Your task to perform on an android device: open app "Walmart Shopping & Grocery" (install if not already installed), go to login, and select forgot password Image 0: 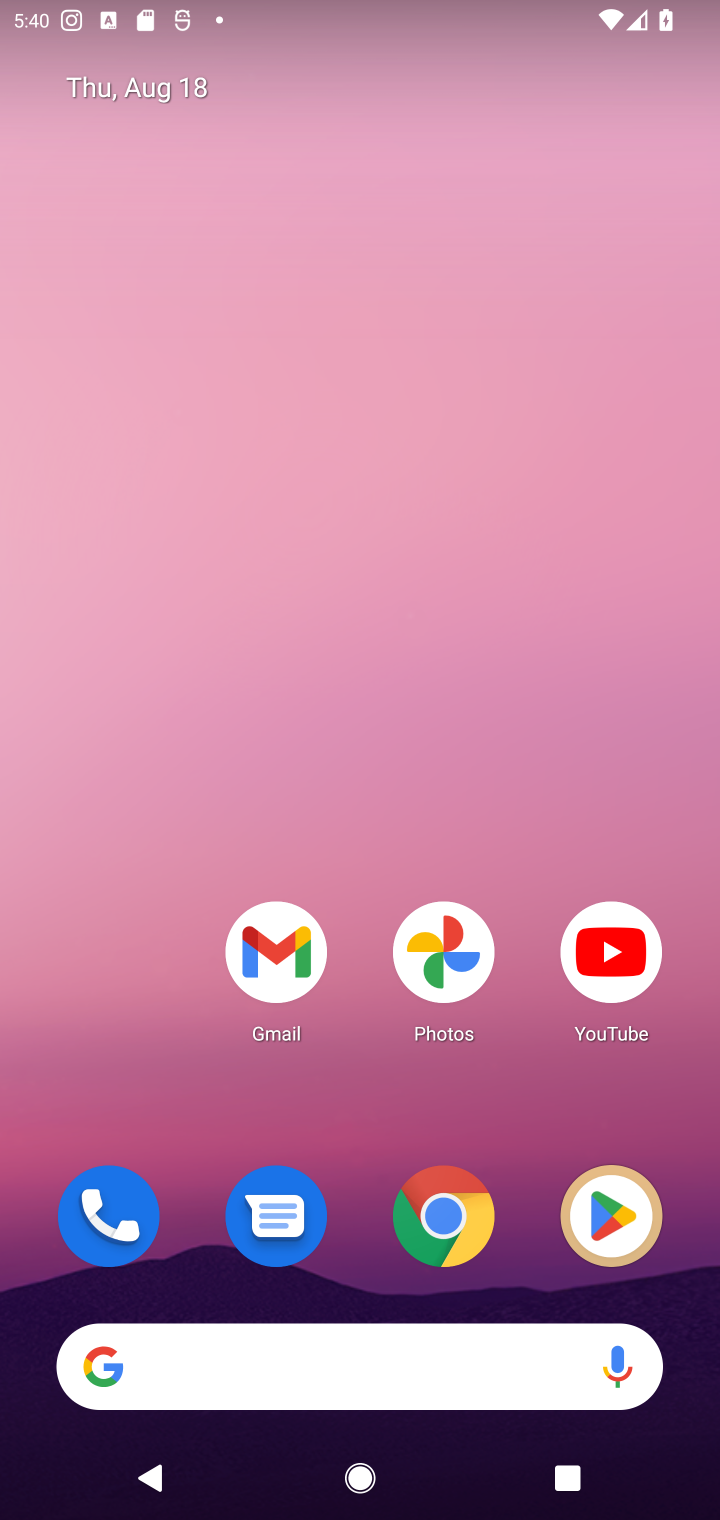
Step 0: click (620, 1205)
Your task to perform on an android device: open app "Walmart Shopping & Grocery" (install if not already installed), go to login, and select forgot password Image 1: 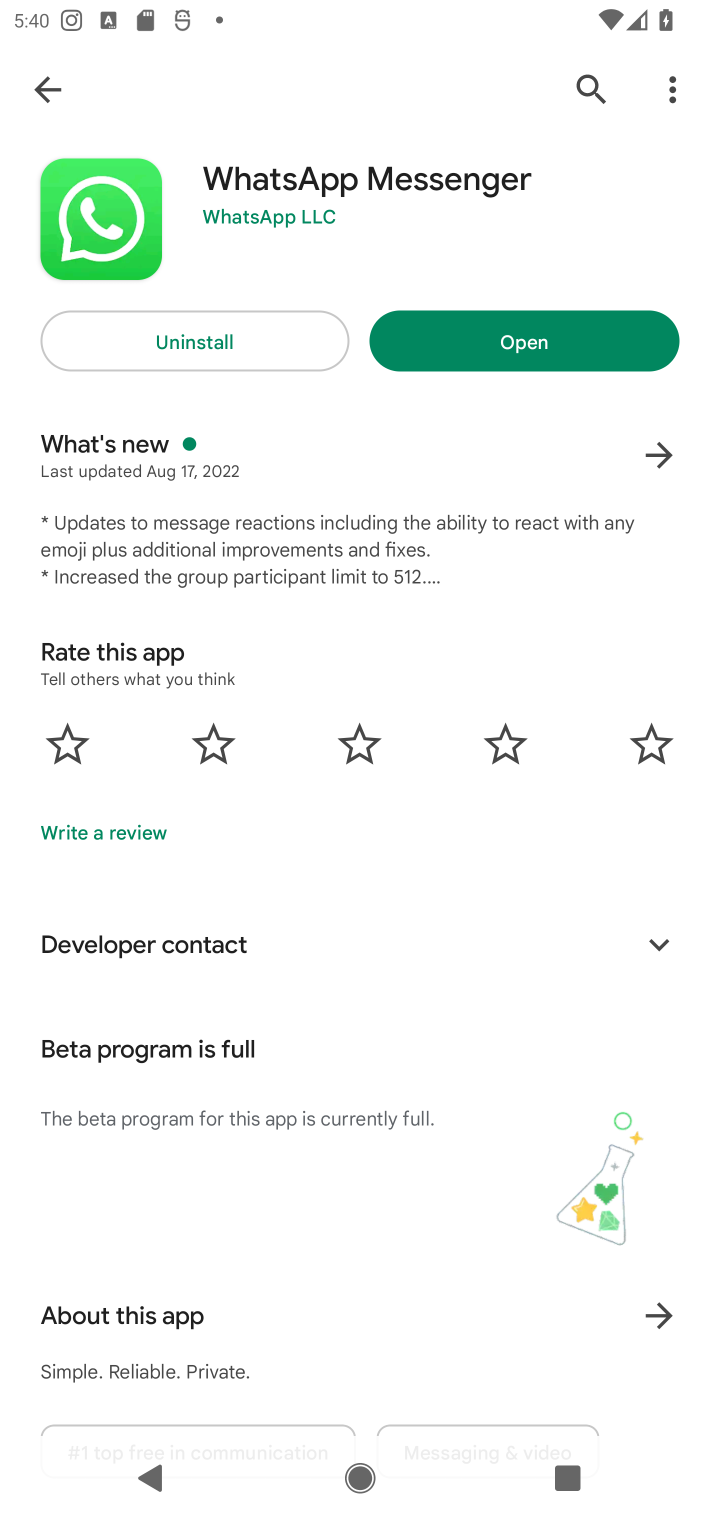
Step 1: click (585, 81)
Your task to perform on an android device: open app "Walmart Shopping & Grocery" (install if not already installed), go to login, and select forgot password Image 2: 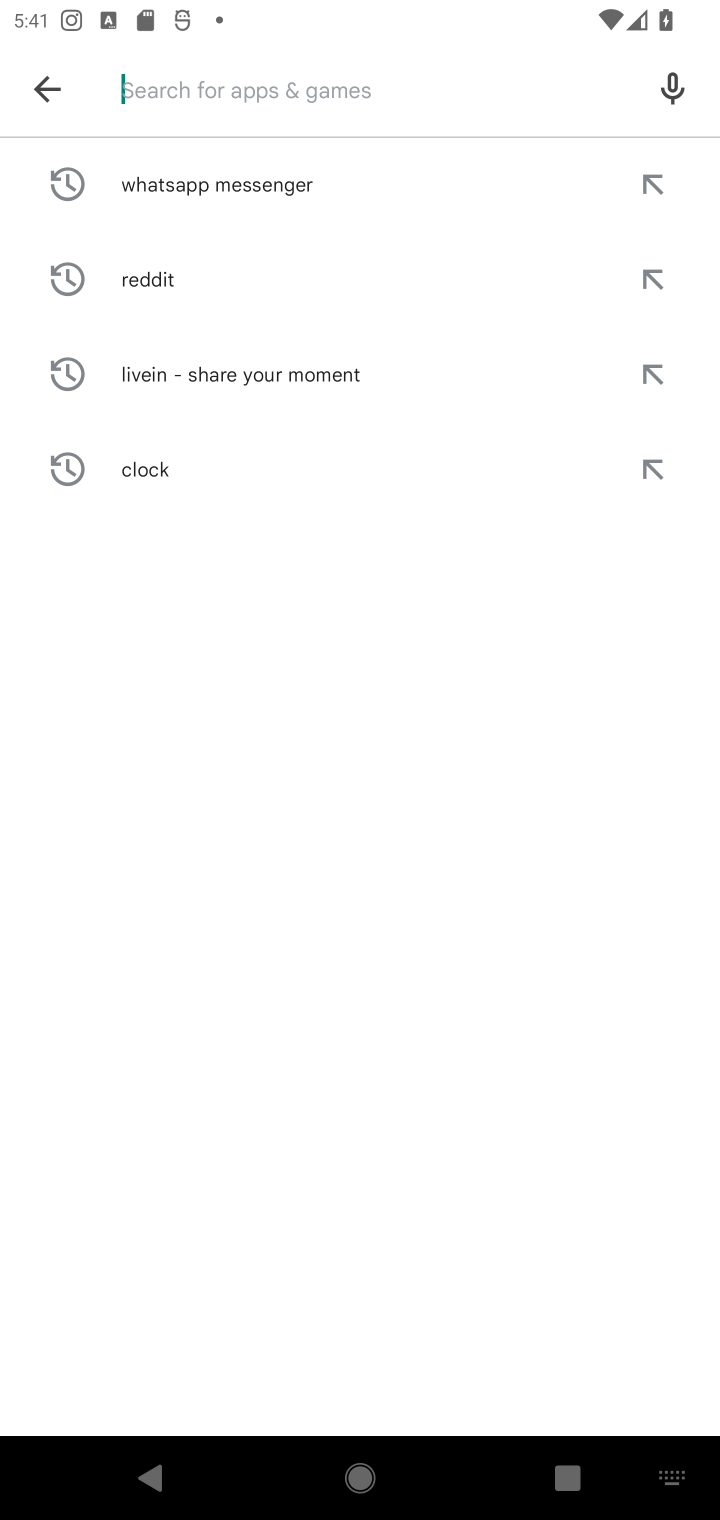
Step 2: type "Walmart Shopping & Grocery"
Your task to perform on an android device: open app "Walmart Shopping & Grocery" (install if not already installed), go to login, and select forgot password Image 3: 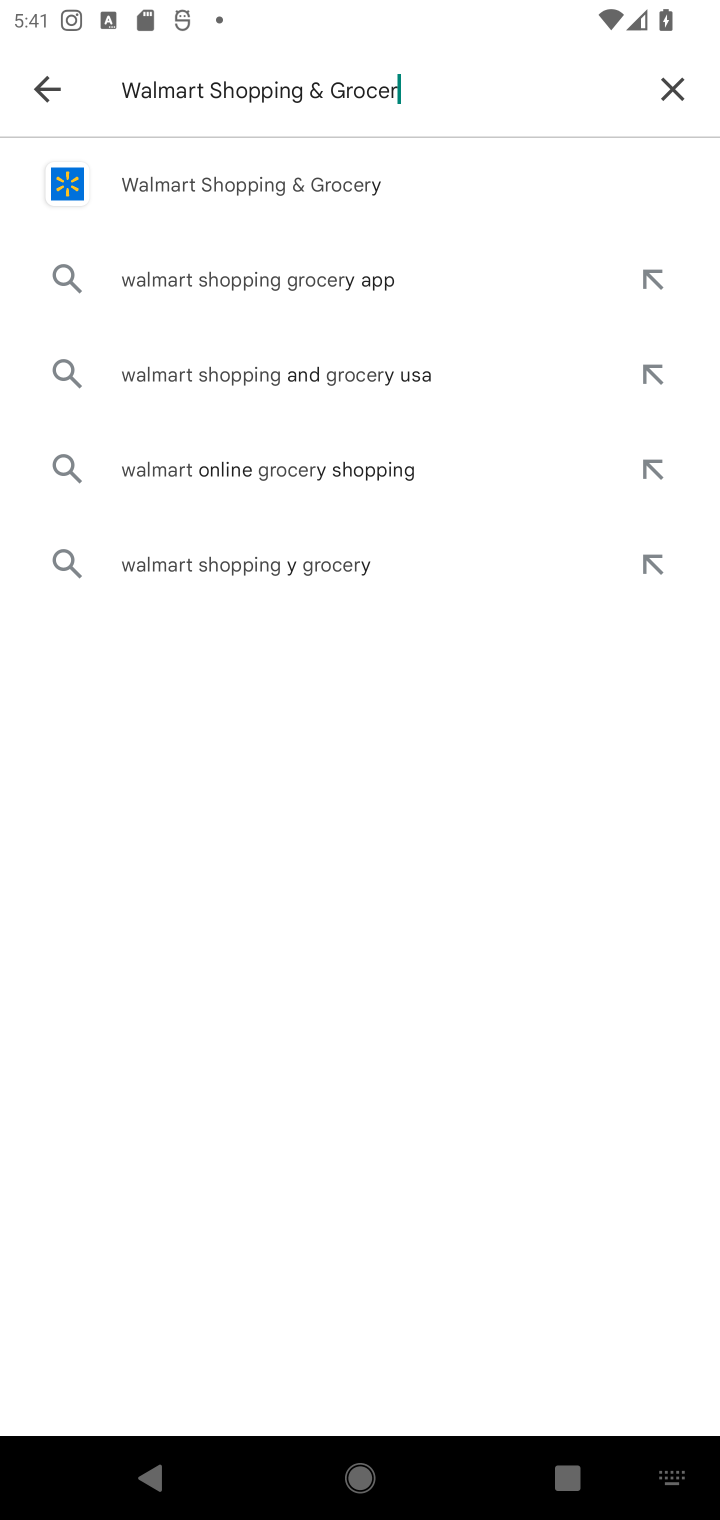
Step 3: type ""
Your task to perform on an android device: open app "Walmart Shopping & Grocery" (install if not already installed), go to login, and select forgot password Image 4: 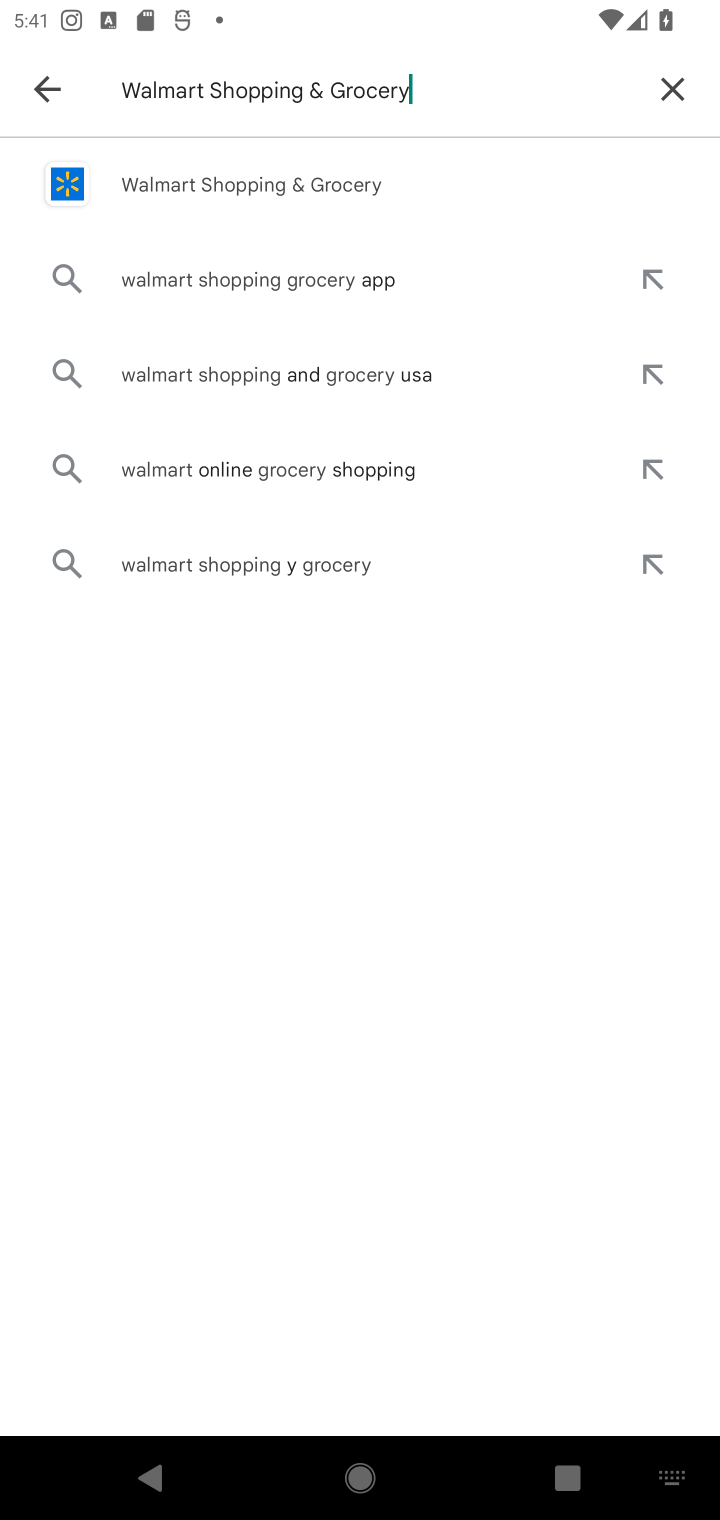
Step 4: click (255, 180)
Your task to perform on an android device: open app "Walmart Shopping & Grocery" (install if not already installed), go to login, and select forgot password Image 5: 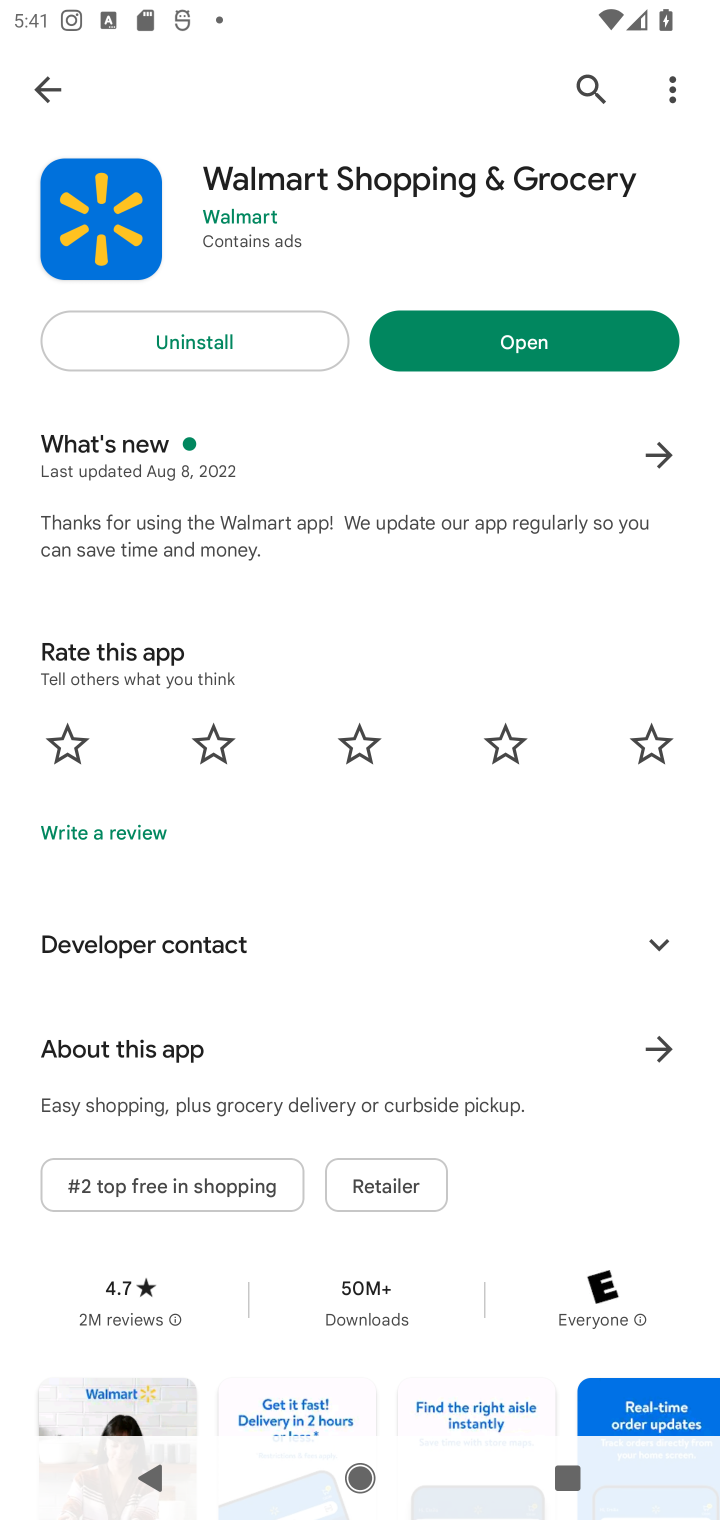
Step 5: click (469, 327)
Your task to perform on an android device: open app "Walmart Shopping & Grocery" (install if not already installed), go to login, and select forgot password Image 6: 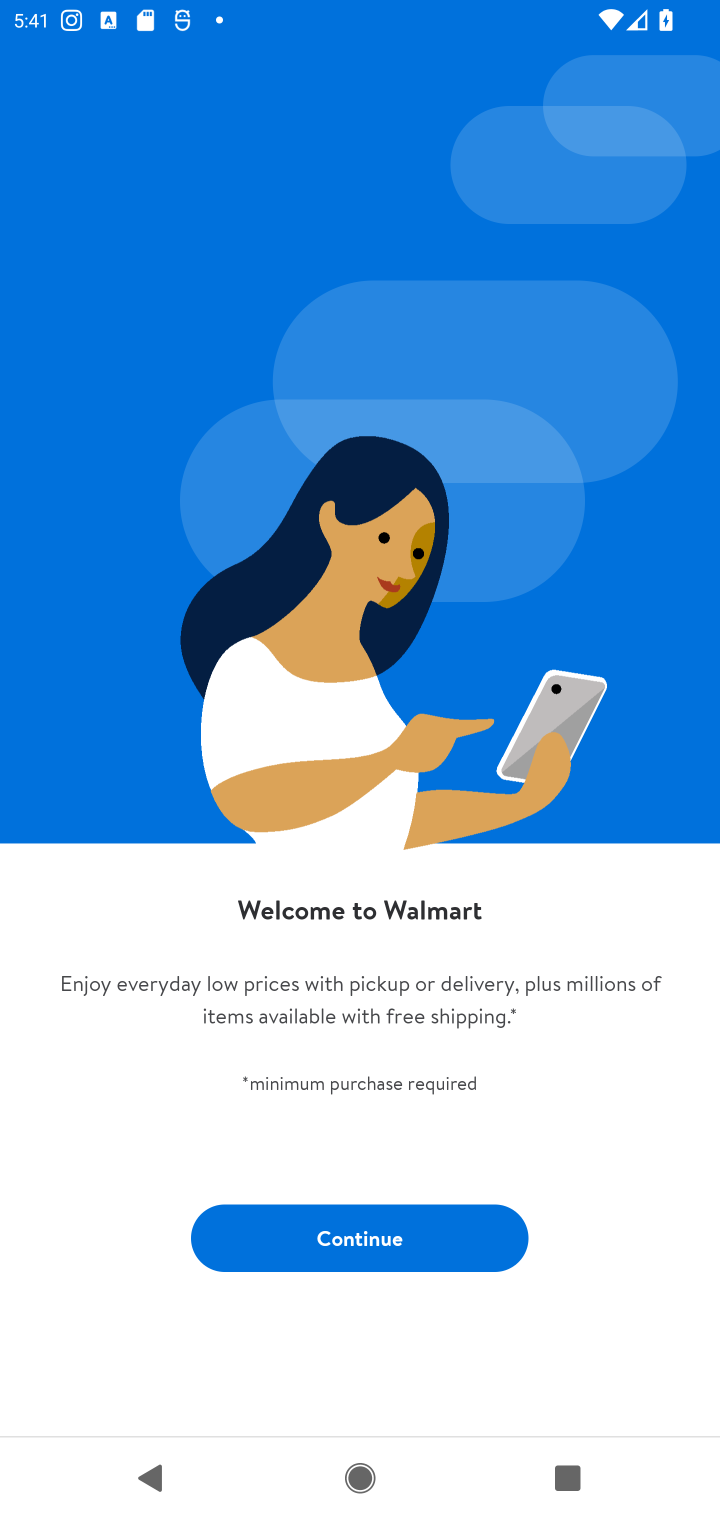
Step 6: task complete